Your task to perform on an android device: add a contact Image 0: 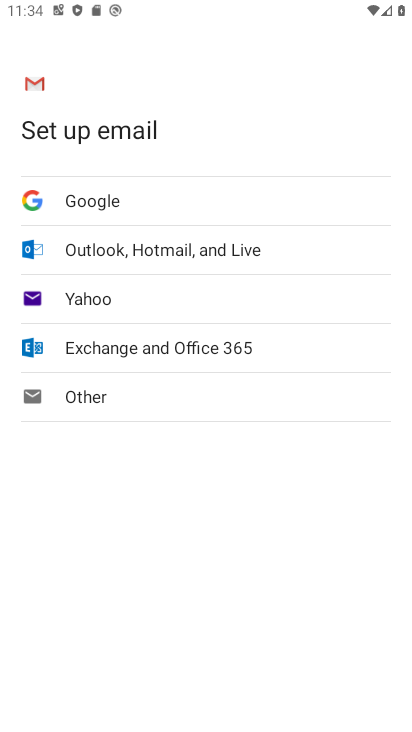
Step 0: press home button
Your task to perform on an android device: add a contact Image 1: 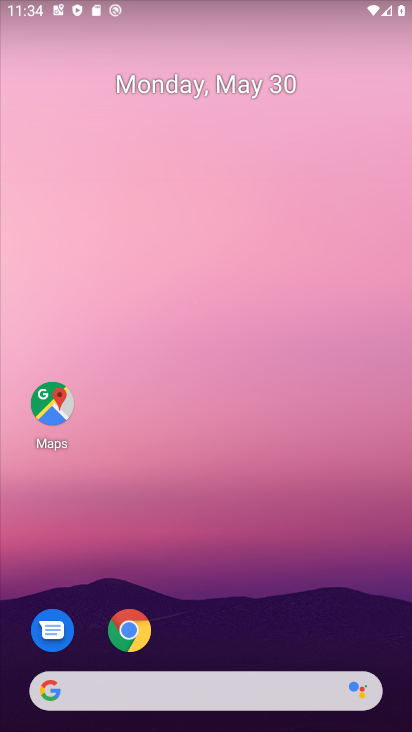
Step 1: drag from (235, 547) to (264, 47)
Your task to perform on an android device: add a contact Image 2: 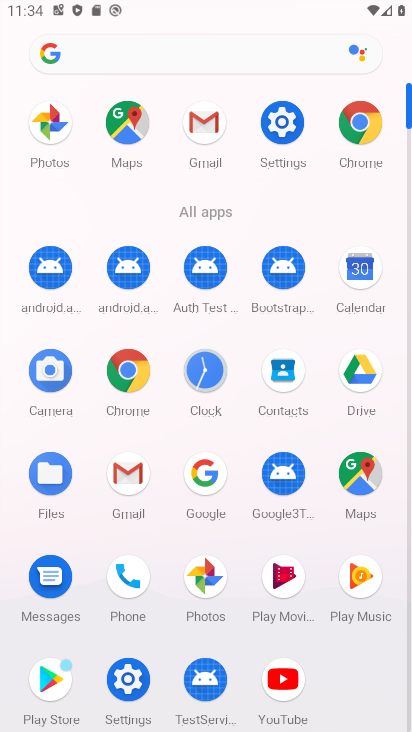
Step 2: click (287, 370)
Your task to perform on an android device: add a contact Image 3: 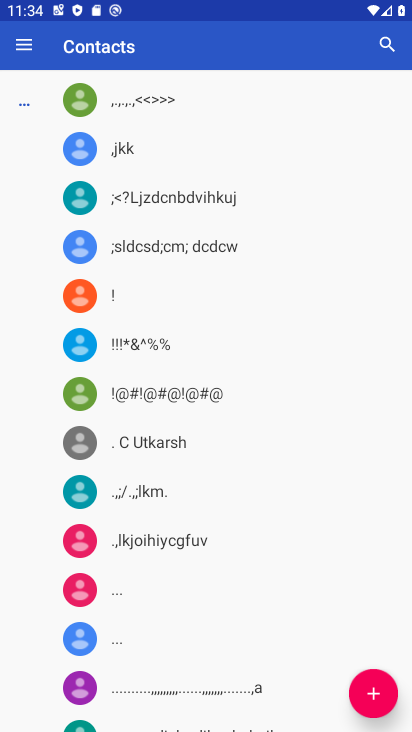
Step 3: click (364, 684)
Your task to perform on an android device: add a contact Image 4: 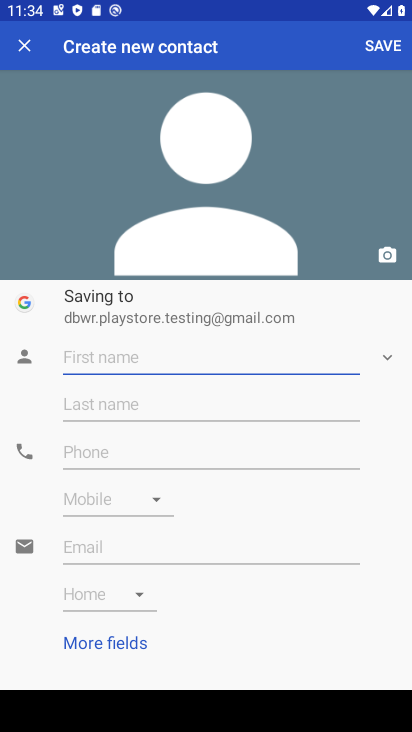
Step 4: type "bvcdfgjh"
Your task to perform on an android device: add a contact Image 5: 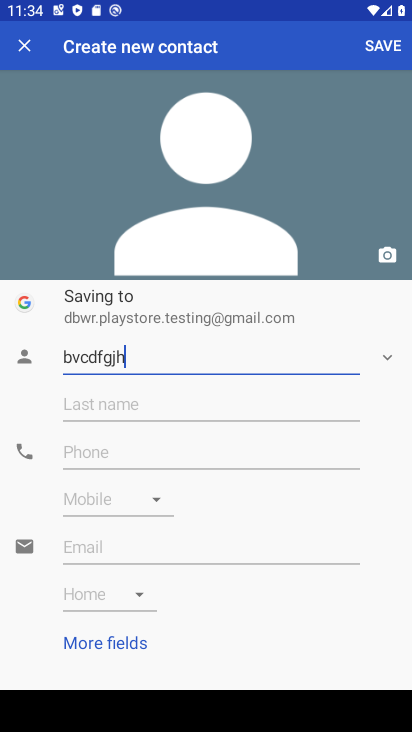
Step 5: click (112, 454)
Your task to perform on an android device: add a contact Image 6: 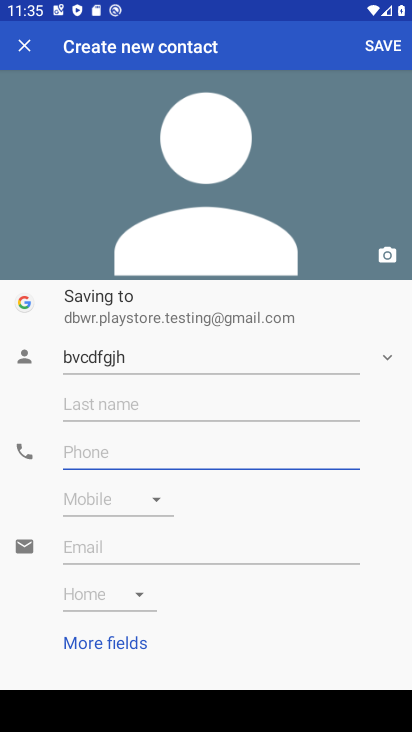
Step 6: type "9876543210"
Your task to perform on an android device: add a contact Image 7: 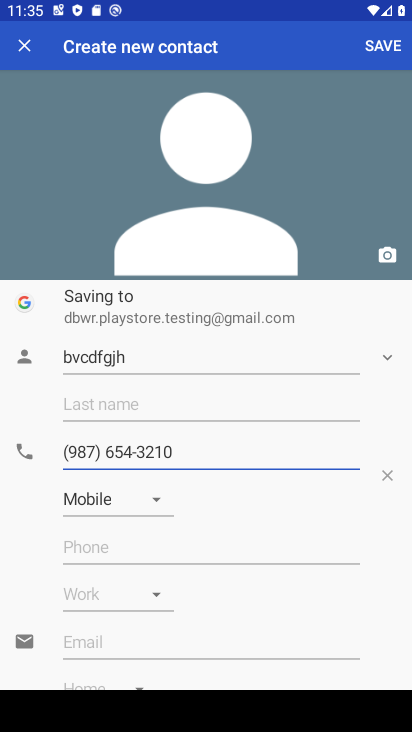
Step 7: click (367, 42)
Your task to perform on an android device: add a contact Image 8: 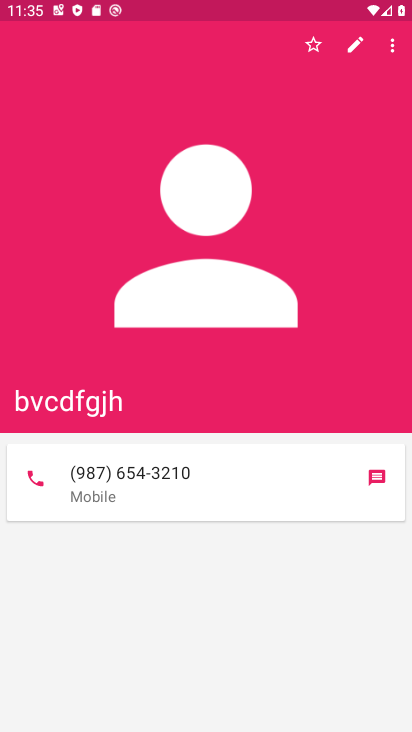
Step 8: task complete